Your task to perform on an android device: toggle sleep mode Image 0: 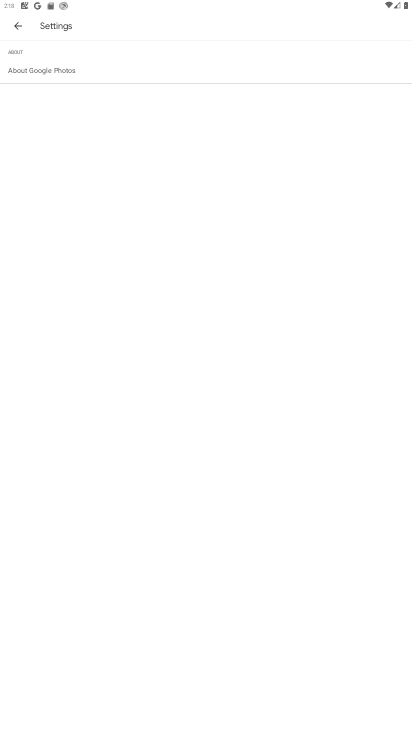
Step 0: press home button
Your task to perform on an android device: toggle sleep mode Image 1: 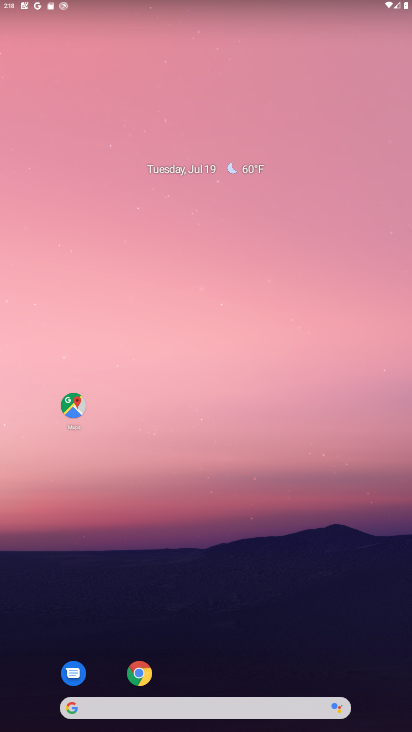
Step 1: drag from (136, 728) to (274, 48)
Your task to perform on an android device: toggle sleep mode Image 2: 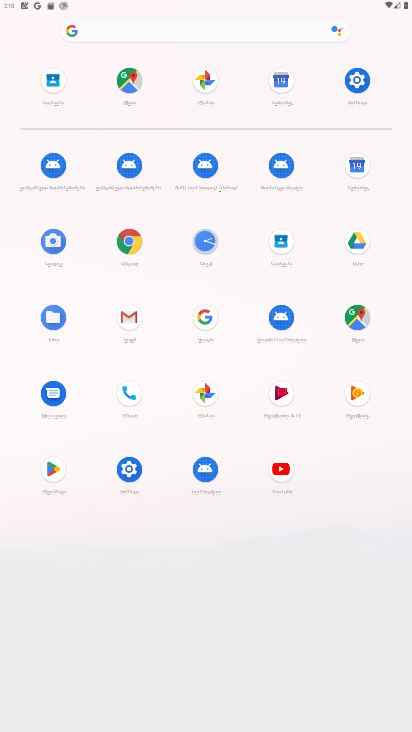
Step 2: click (361, 83)
Your task to perform on an android device: toggle sleep mode Image 3: 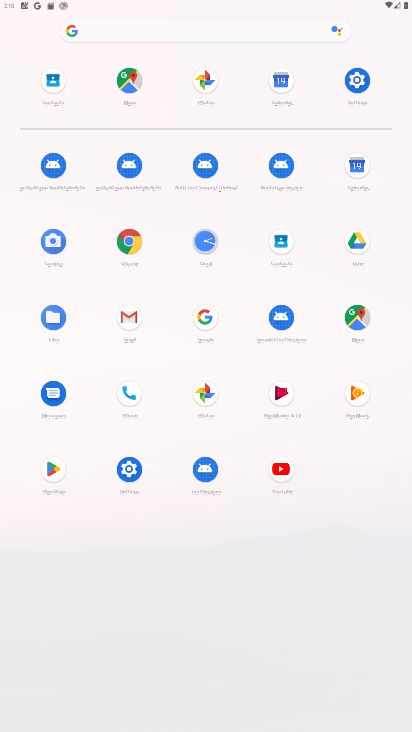
Step 3: click (361, 83)
Your task to perform on an android device: toggle sleep mode Image 4: 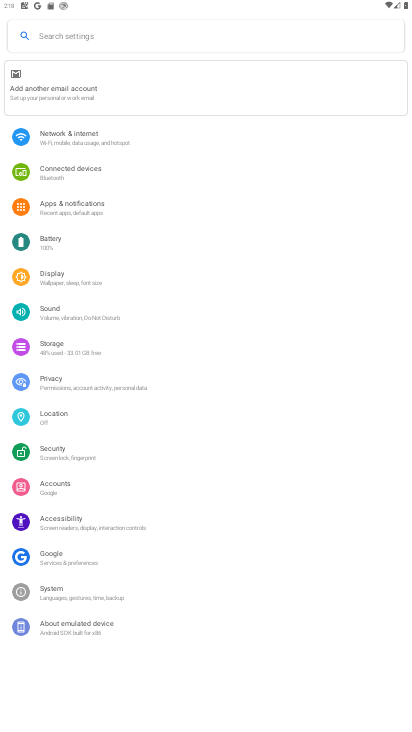
Step 4: click (95, 282)
Your task to perform on an android device: toggle sleep mode Image 5: 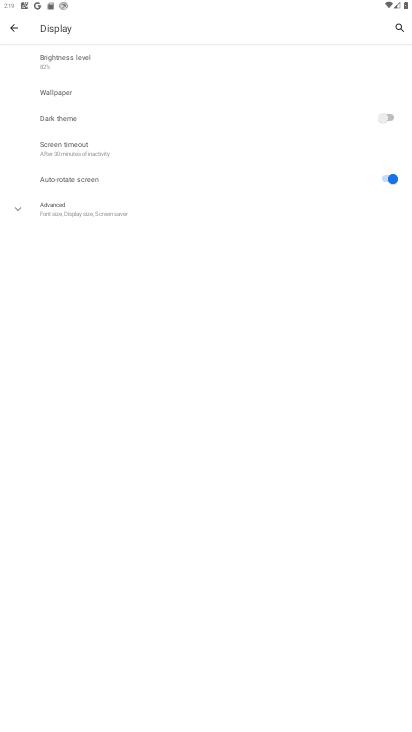
Step 5: task complete